Your task to perform on an android device: Open the calendar app, open the side menu, and click the "Day" option Image 0: 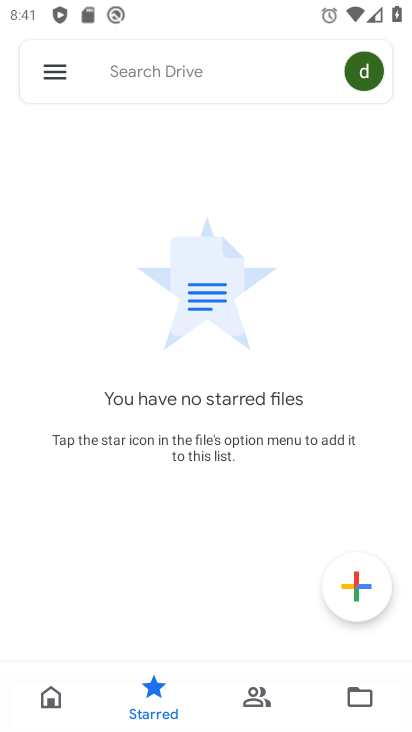
Step 0: press home button
Your task to perform on an android device: Open the calendar app, open the side menu, and click the "Day" option Image 1: 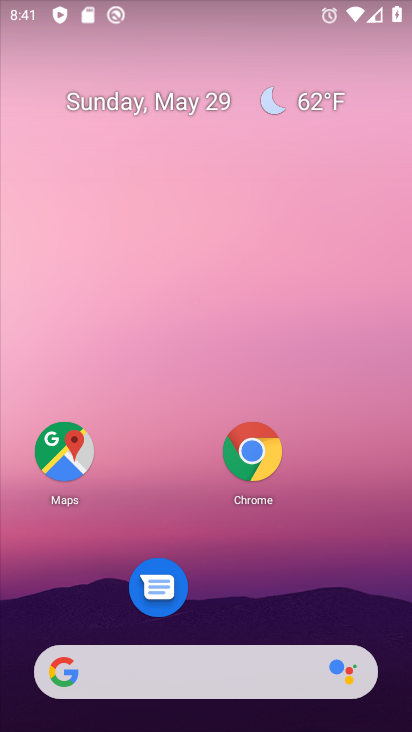
Step 1: click (86, 104)
Your task to perform on an android device: Open the calendar app, open the side menu, and click the "Day" option Image 2: 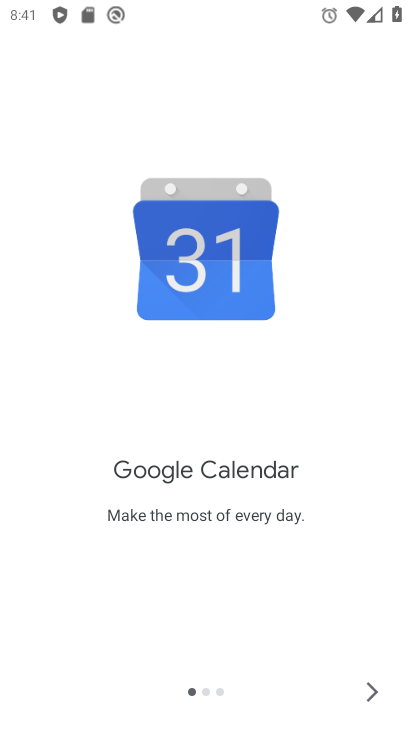
Step 2: click (374, 689)
Your task to perform on an android device: Open the calendar app, open the side menu, and click the "Day" option Image 3: 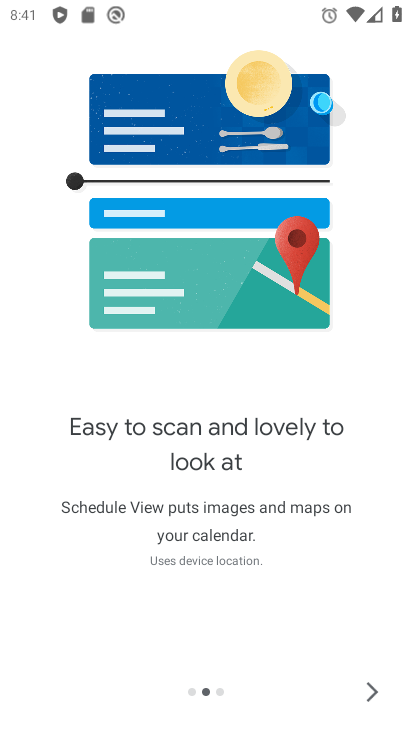
Step 3: click (374, 689)
Your task to perform on an android device: Open the calendar app, open the side menu, and click the "Day" option Image 4: 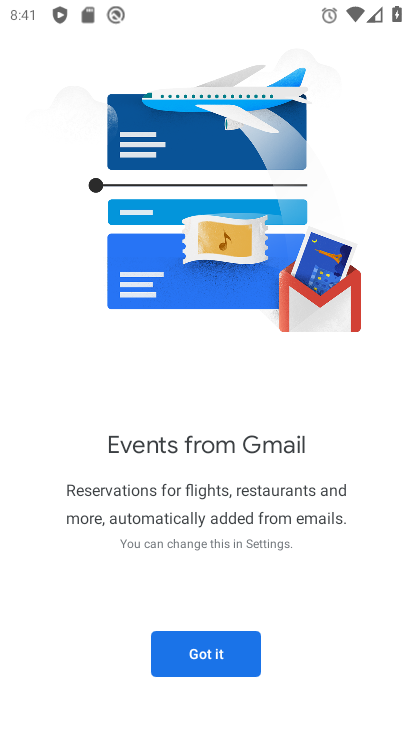
Step 4: click (177, 665)
Your task to perform on an android device: Open the calendar app, open the side menu, and click the "Day" option Image 5: 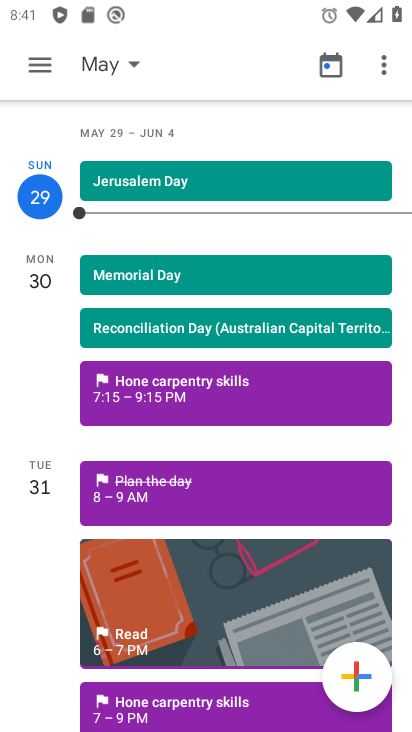
Step 5: click (22, 77)
Your task to perform on an android device: Open the calendar app, open the side menu, and click the "Day" option Image 6: 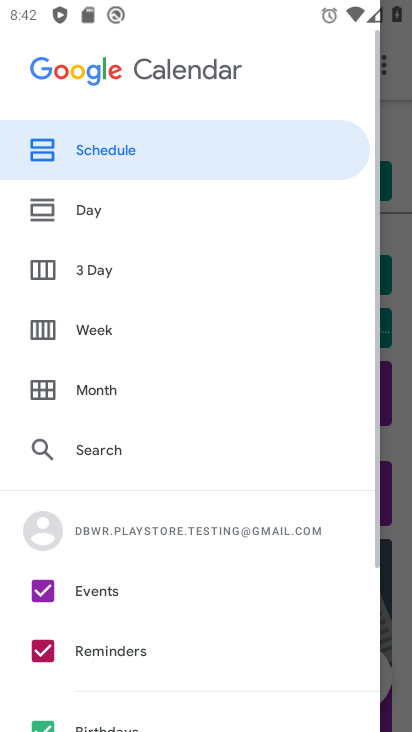
Step 6: click (83, 219)
Your task to perform on an android device: Open the calendar app, open the side menu, and click the "Day" option Image 7: 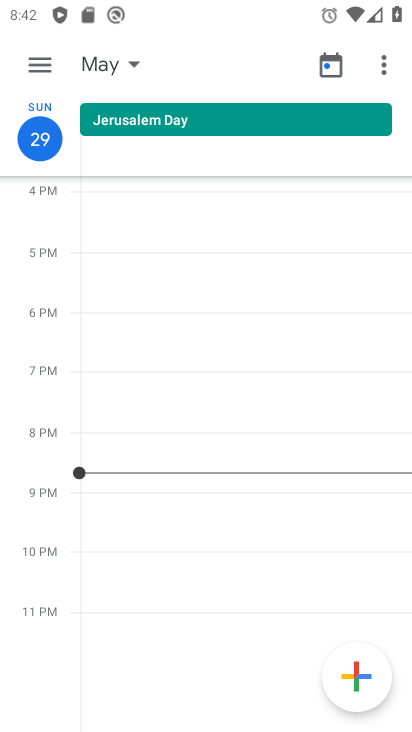
Step 7: task complete